Your task to perform on an android device: Open Youtube and go to "Your channel" Image 0: 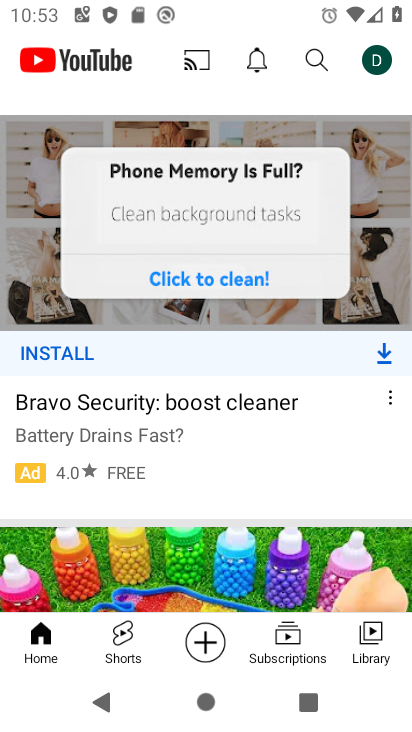
Step 0: click (381, 69)
Your task to perform on an android device: Open Youtube and go to "Your channel" Image 1: 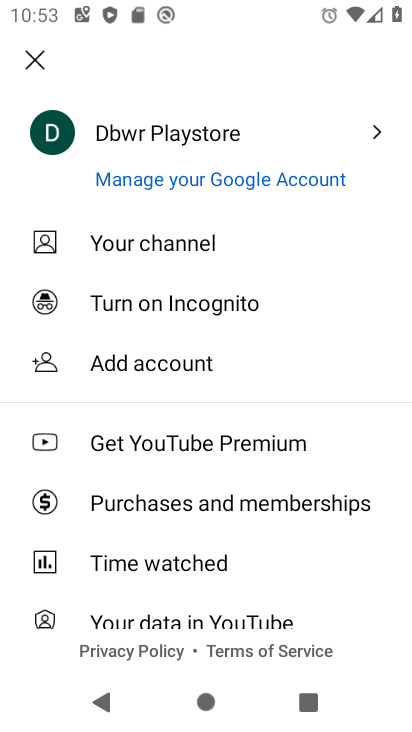
Step 1: click (129, 237)
Your task to perform on an android device: Open Youtube and go to "Your channel" Image 2: 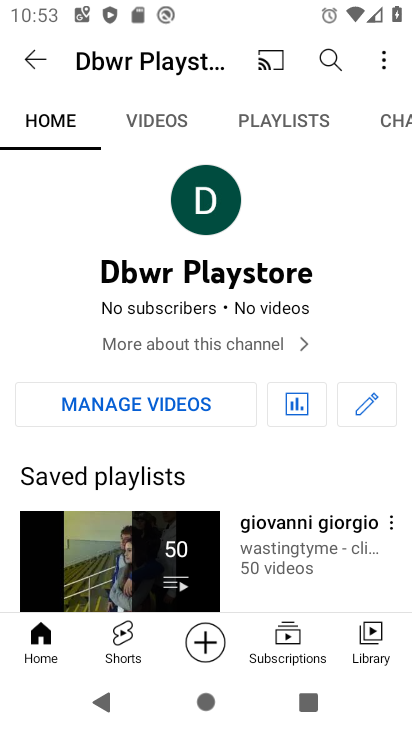
Step 2: task complete